Your task to perform on an android device: Open Google Image 0: 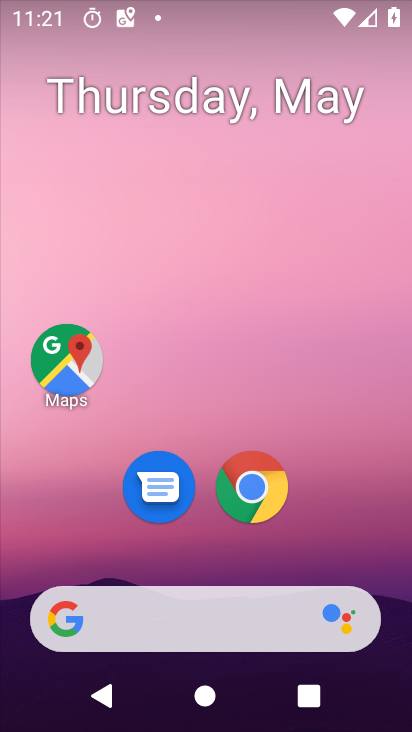
Step 0: drag from (197, 567) to (183, 68)
Your task to perform on an android device: Open Google Image 1: 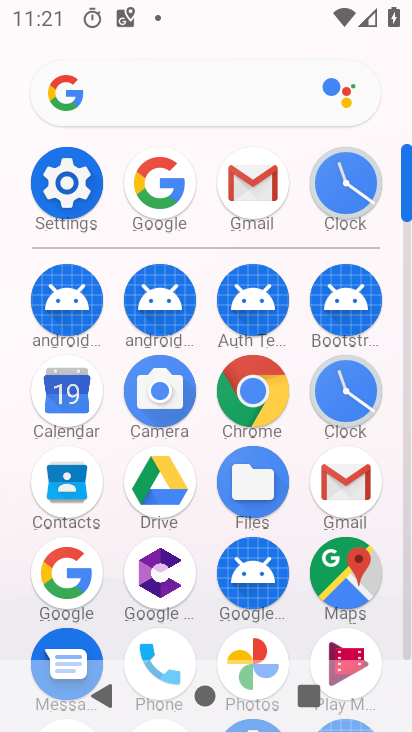
Step 1: click (155, 191)
Your task to perform on an android device: Open Google Image 2: 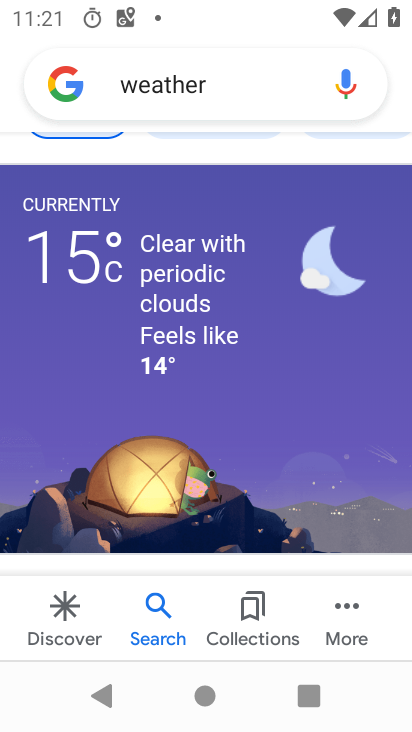
Step 2: task complete